Your task to perform on an android device: Open Wikipedia Image 0: 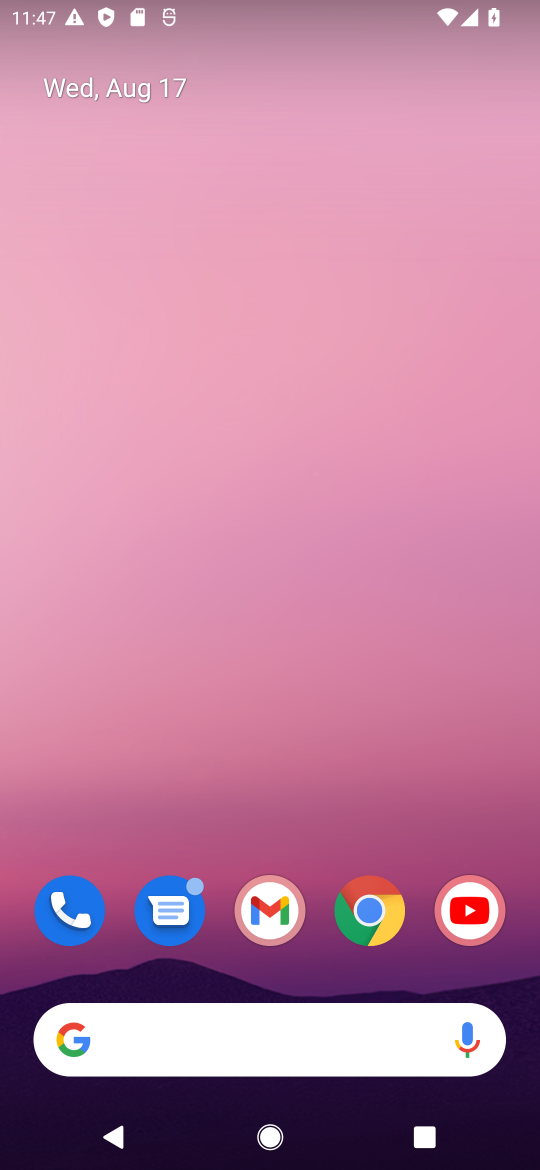
Step 0: click (356, 921)
Your task to perform on an android device: Open Wikipedia Image 1: 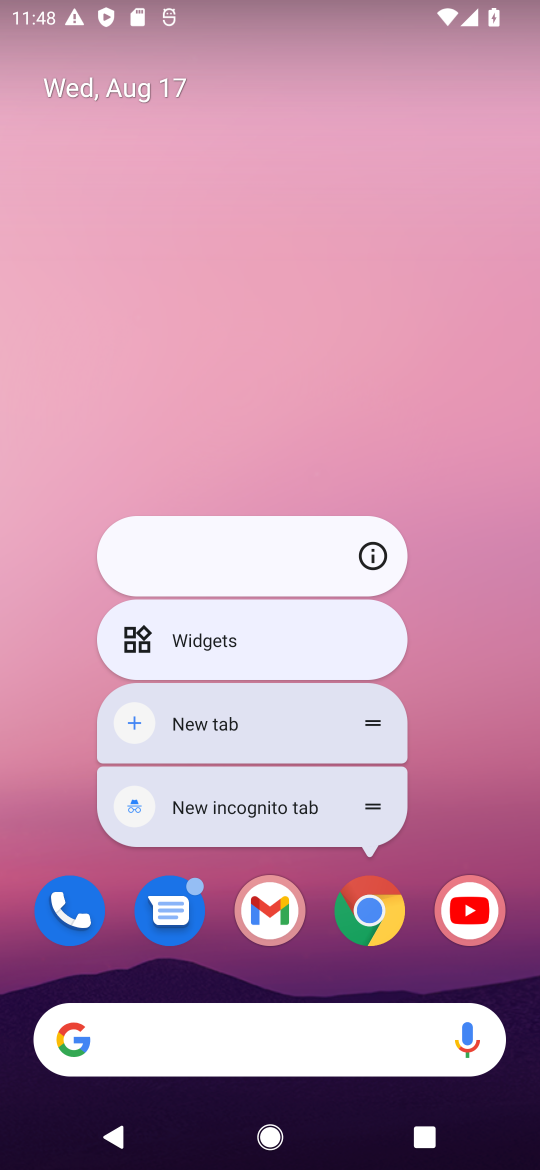
Step 1: click (358, 913)
Your task to perform on an android device: Open Wikipedia Image 2: 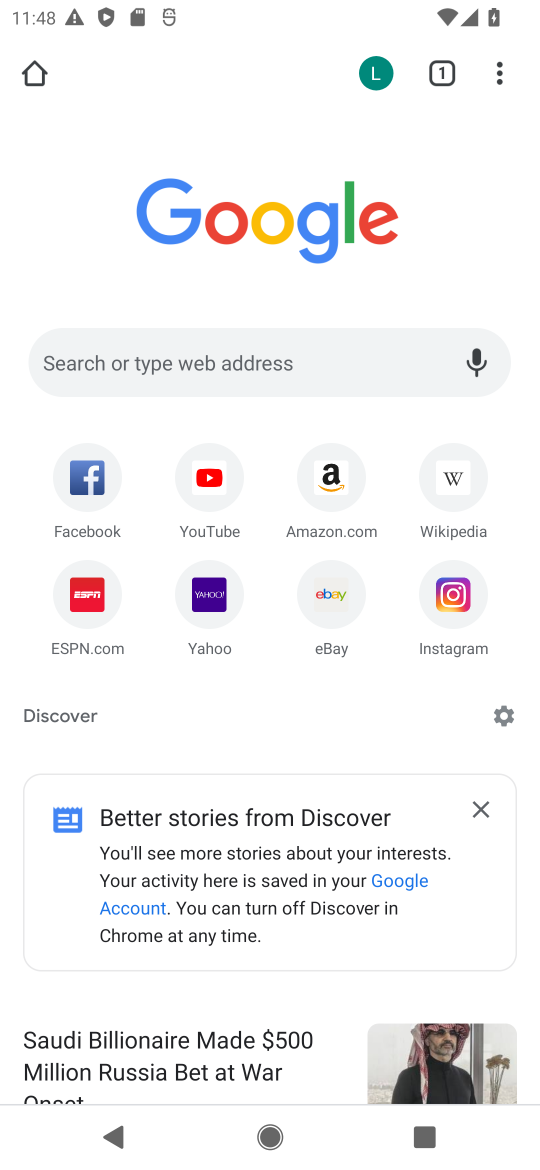
Step 2: click (453, 466)
Your task to perform on an android device: Open Wikipedia Image 3: 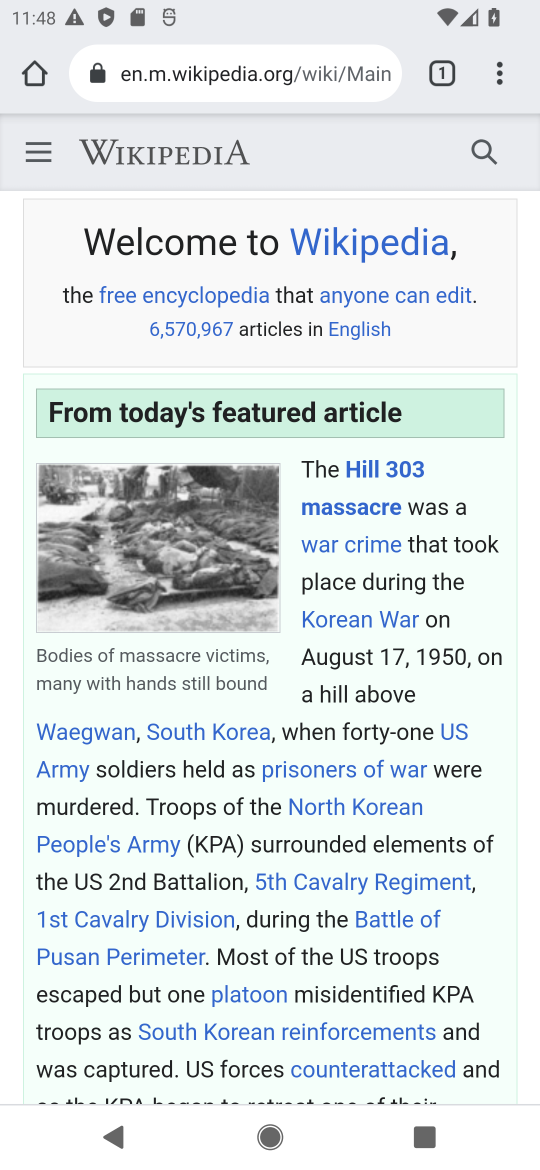
Step 3: task complete